Your task to perform on an android device: see tabs open on other devices in the chrome app Image 0: 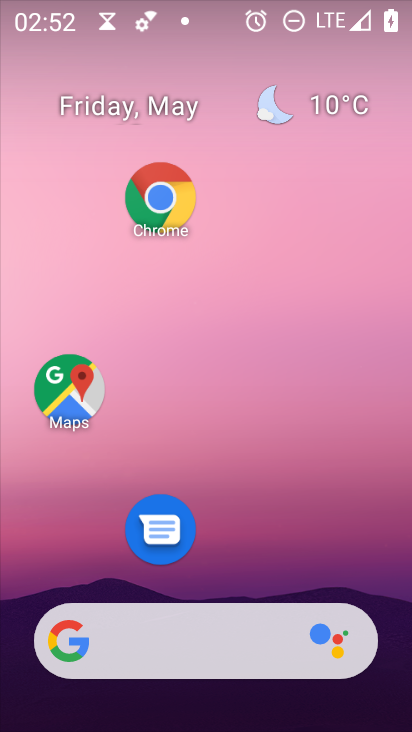
Step 0: drag from (257, 490) to (255, 267)
Your task to perform on an android device: see tabs open on other devices in the chrome app Image 1: 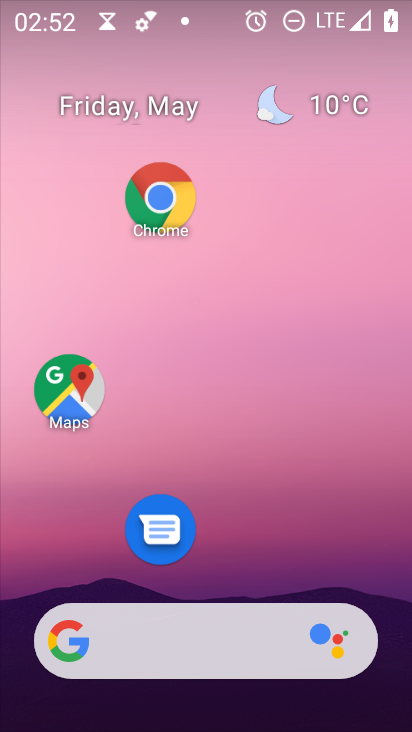
Step 1: drag from (246, 586) to (264, 249)
Your task to perform on an android device: see tabs open on other devices in the chrome app Image 2: 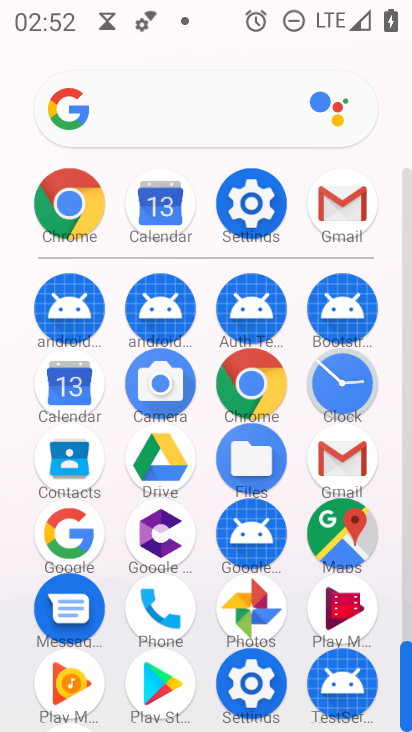
Step 2: click (71, 206)
Your task to perform on an android device: see tabs open on other devices in the chrome app Image 3: 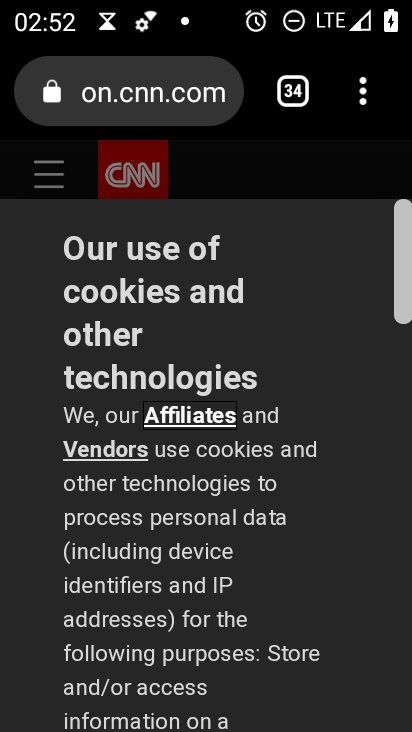
Step 3: click (402, 89)
Your task to perform on an android device: see tabs open on other devices in the chrome app Image 4: 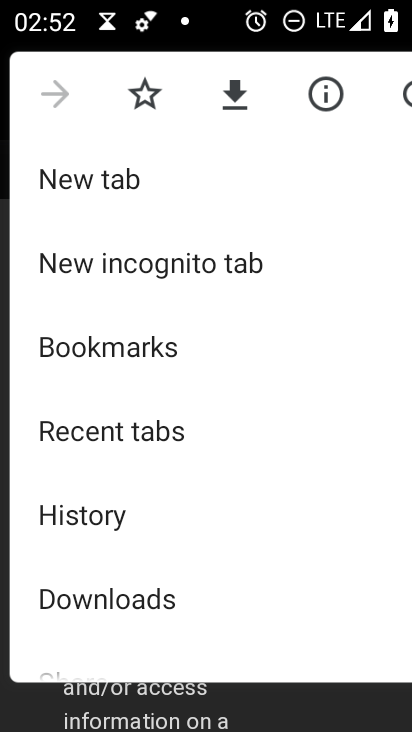
Step 4: click (152, 176)
Your task to perform on an android device: see tabs open on other devices in the chrome app Image 5: 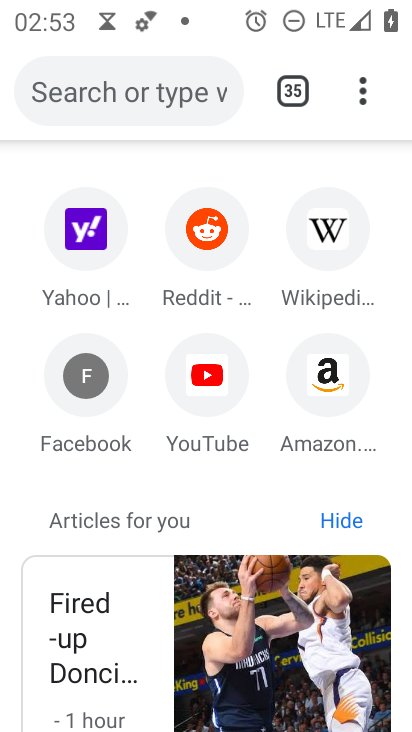
Step 5: click (369, 78)
Your task to perform on an android device: see tabs open on other devices in the chrome app Image 6: 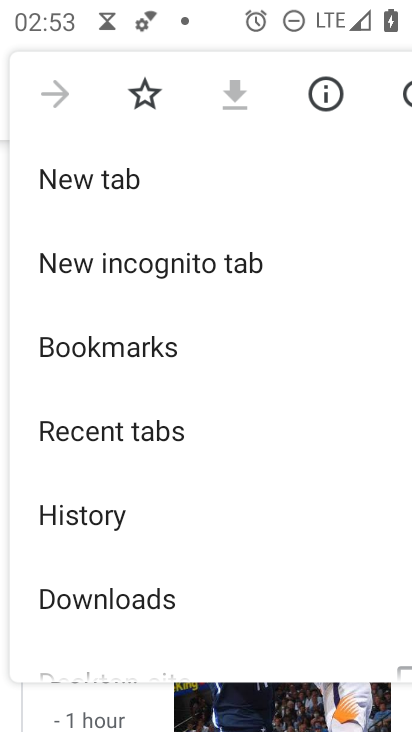
Step 6: task complete